Your task to perform on an android device: open sync settings in chrome Image 0: 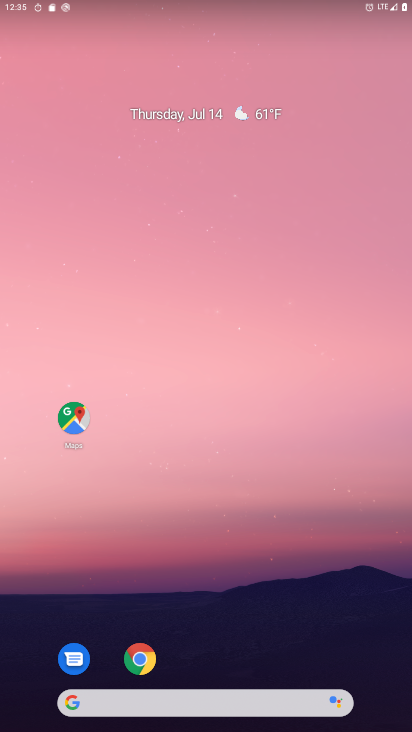
Step 0: press home button
Your task to perform on an android device: open sync settings in chrome Image 1: 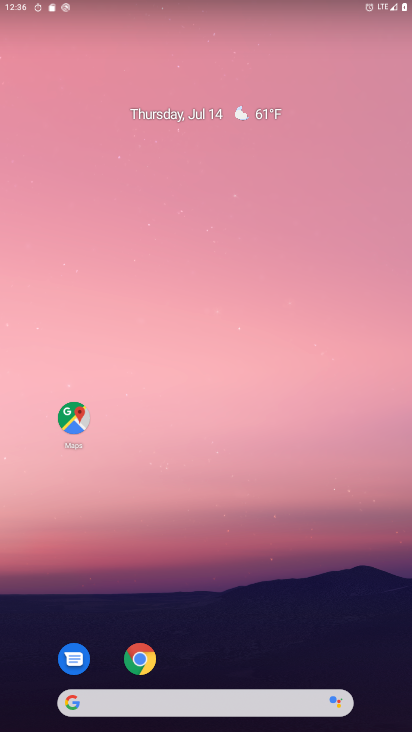
Step 1: click (140, 653)
Your task to perform on an android device: open sync settings in chrome Image 2: 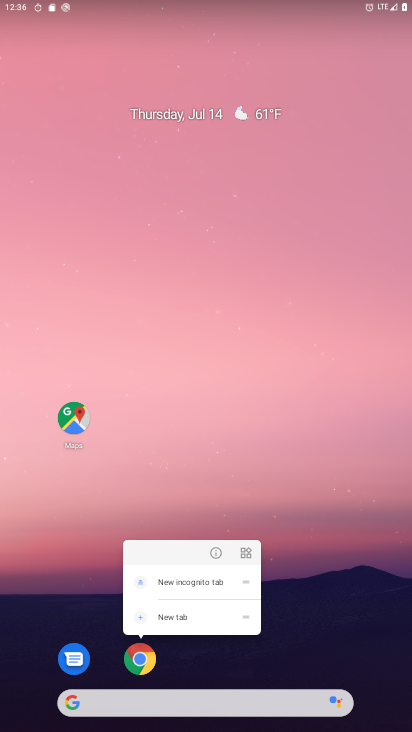
Step 2: click (141, 655)
Your task to perform on an android device: open sync settings in chrome Image 3: 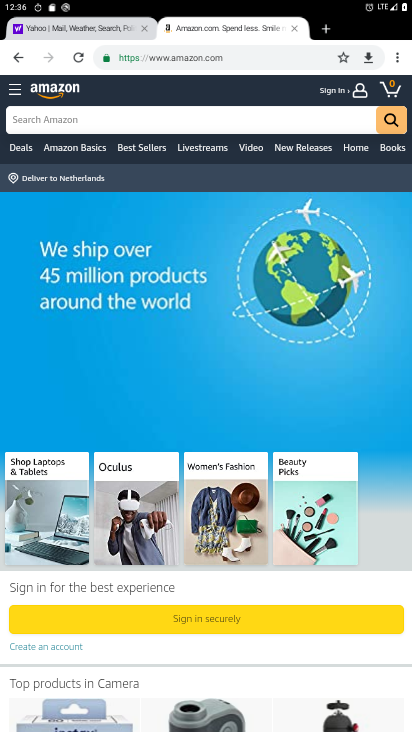
Step 3: click (399, 57)
Your task to perform on an android device: open sync settings in chrome Image 4: 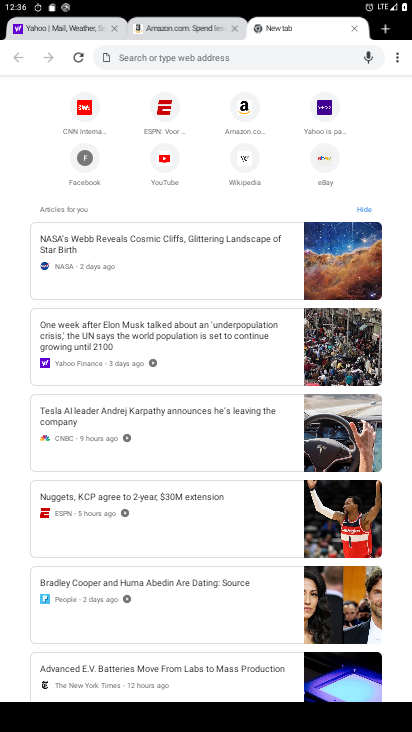
Step 4: click (399, 55)
Your task to perform on an android device: open sync settings in chrome Image 5: 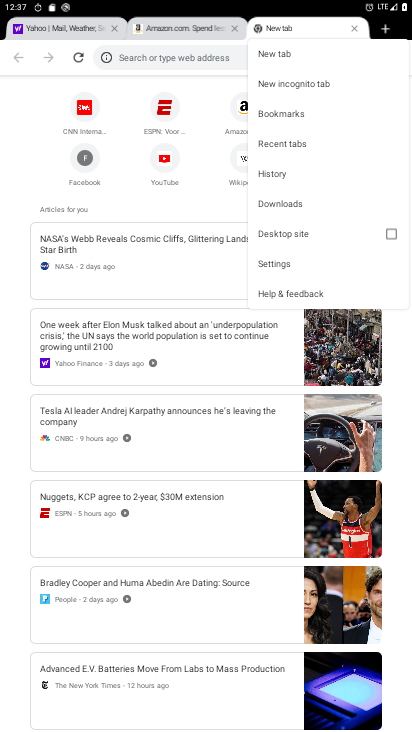
Step 5: click (292, 261)
Your task to perform on an android device: open sync settings in chrome Image 6: 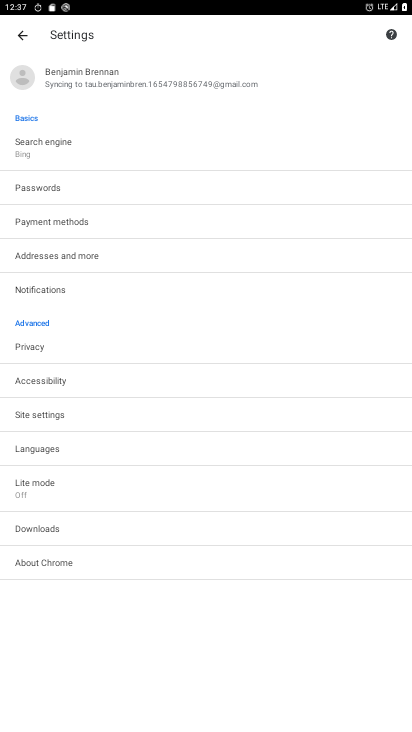
Step 6: click (98, 63)
Your task to perform on an android device: open sync settings in chrome Image 7: 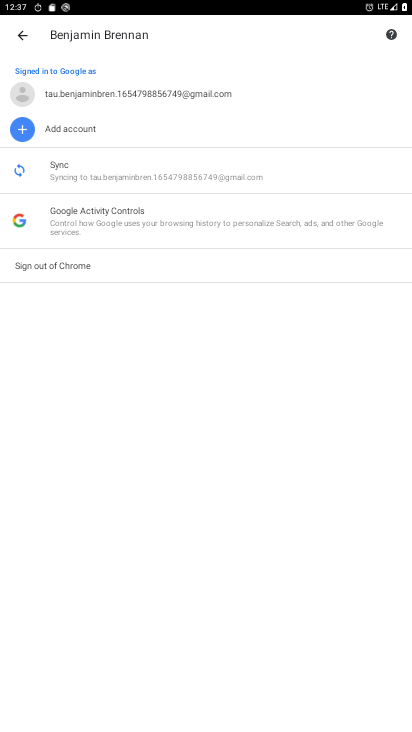
Step 7: click (95, 164)
Your task to perform on an android device: open sync settings in chrome Image 8: 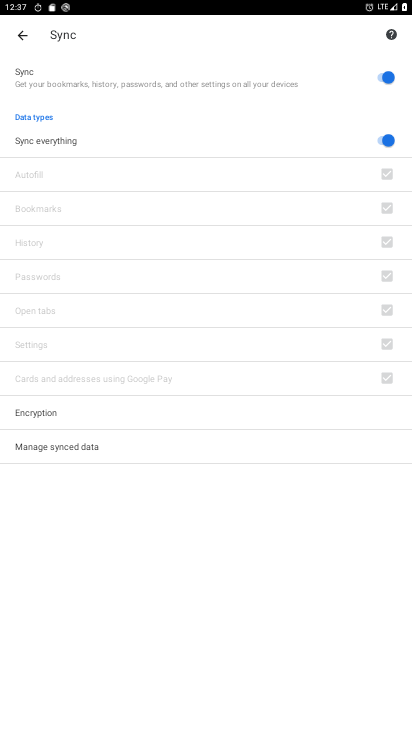
Step 8: task complete